Your task to perform on an android device: Open Reddit.com Image 0: 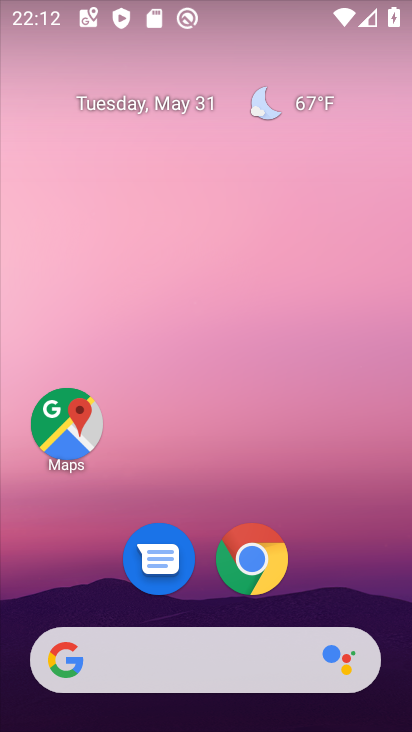
Step 0: drag from (315, 585) to (340, 92)
Your task to perform on an android device: Open Reddit.com Image 1: 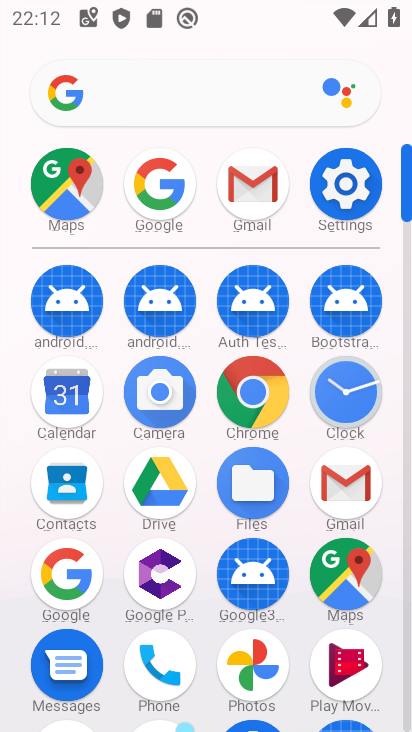
Step 1: click (168, 181)
Your task to perform on an android device: Open Reddit.com Image 2: 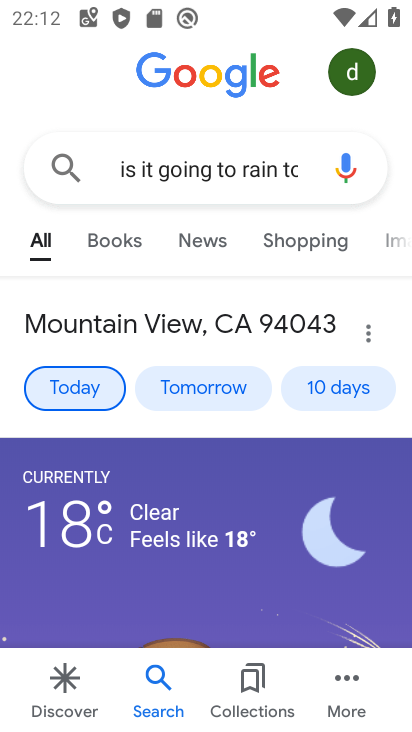
Step 2: click (289, 171)
Your task to perform on an android device: Open Reddit.com Image 3: 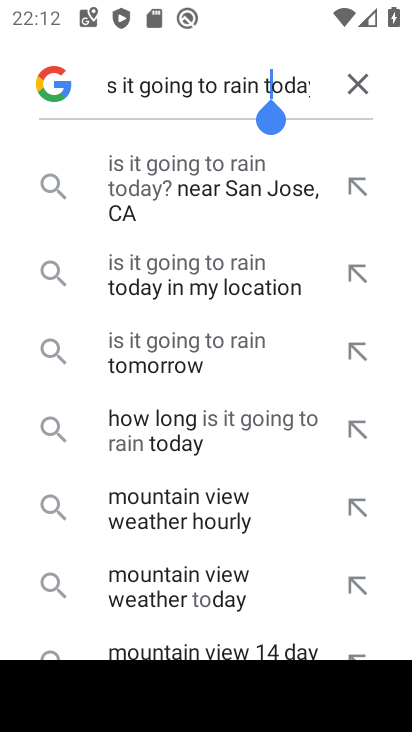
Step 3: click (352, 82)
Your task to perform on an android device: Open Reddit.com Image 4: 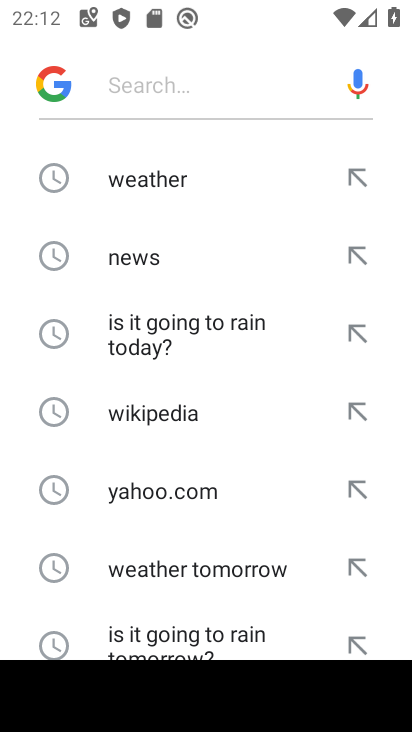
Step 4: drag from (207, 536) to (209, 211)
Your task to perform on an android device: Open Reddit.com Image 5: 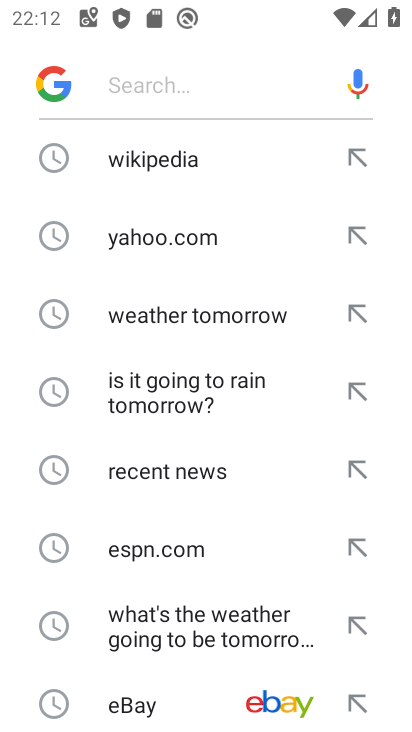
Step 5: drag from (206, 562) to (232, 173)
Your task to perform on an android device: Open Reddit.com Image 6: 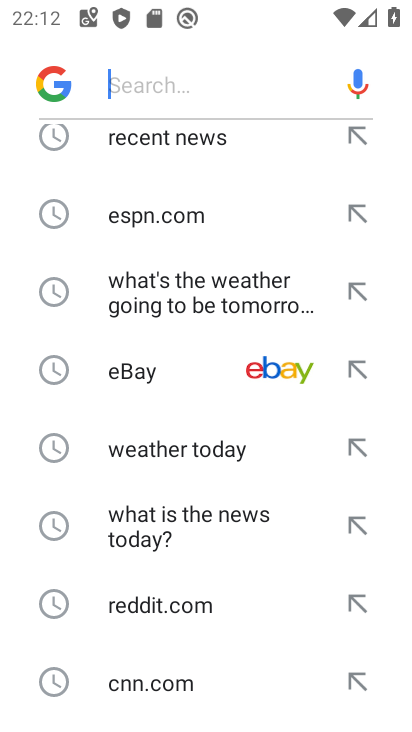
Step 6: click (159, 612)
Your task to perform on an android device: Open Reddit.com Image 7: 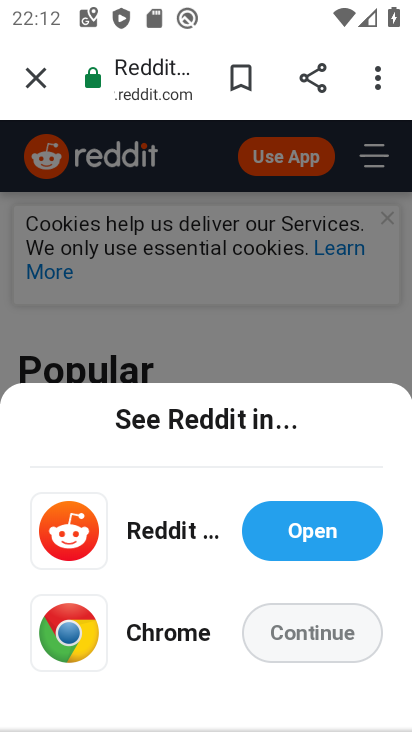
Step 7: task complete